Your task to perform on an android device: Go to Amazon Image 0: 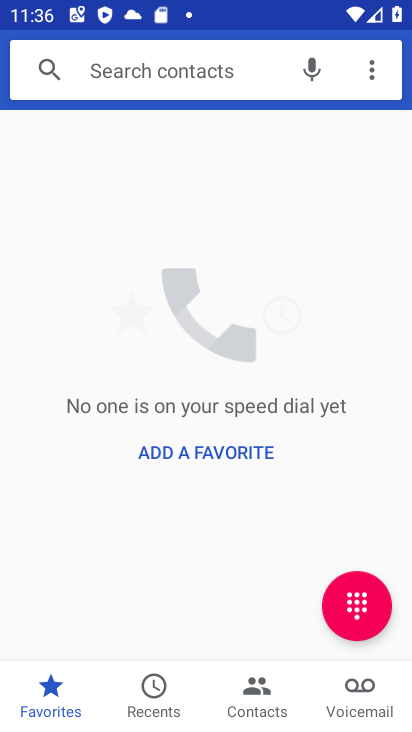
Step 0: press home button
Your task to perform on an android device: Go to Amazon Image 1: 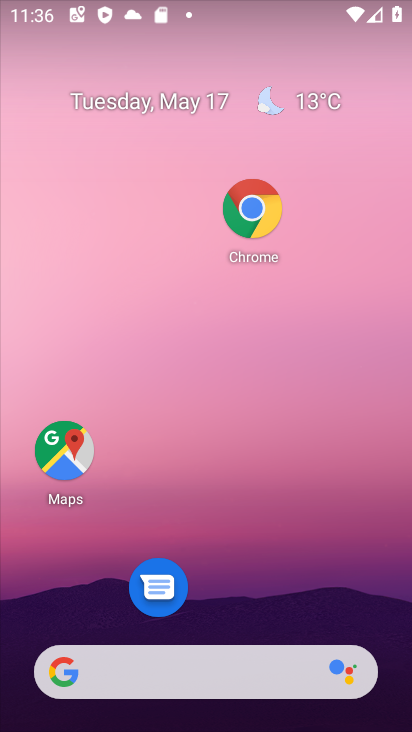
Step 1: click (251, 210)
Your task to perform on an android device: Go to Amazon Image 2: 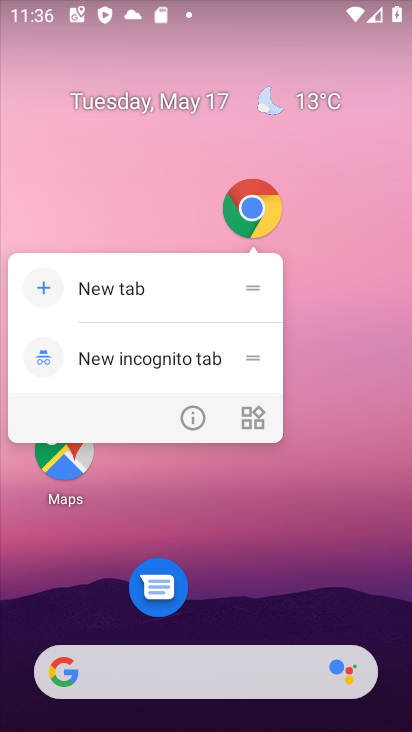
Step 2: click (251, 210)
Your task to perform on an android device: Go to Amazon Image 3: 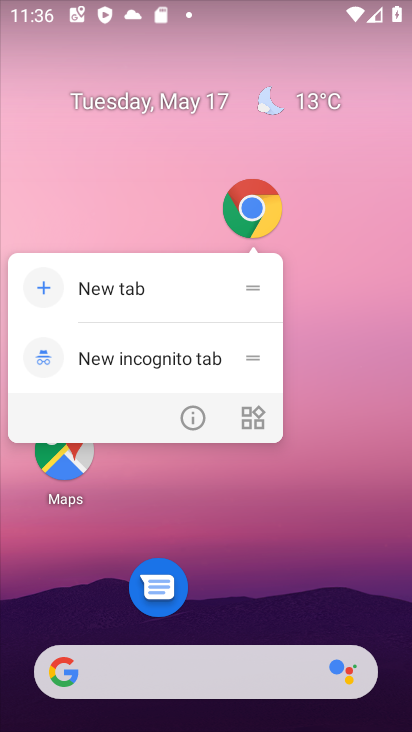
Step 3: click (251, 210)
Your task to perform on an android device: Go to Amazon Image 4: 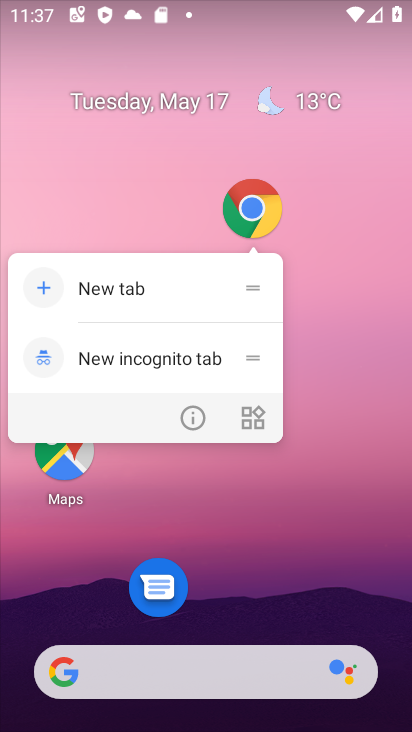
Step 4: click (251, 210)
Your task to perform on an android device: Go to Amazon Image 5: 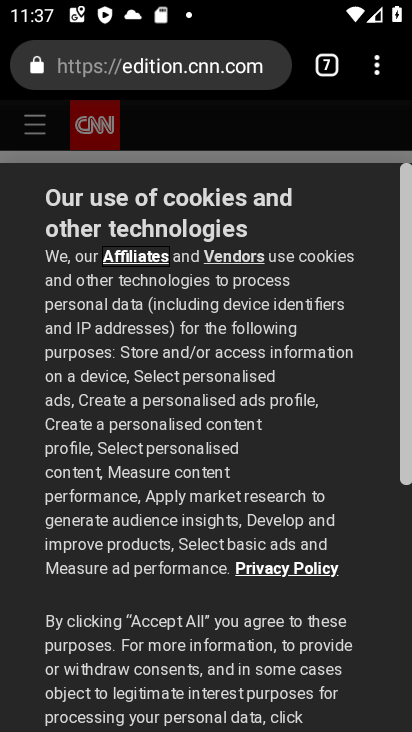
Step 5: click (329, 68)
Your task to perform on an android device: Go to Amazon Image 6: 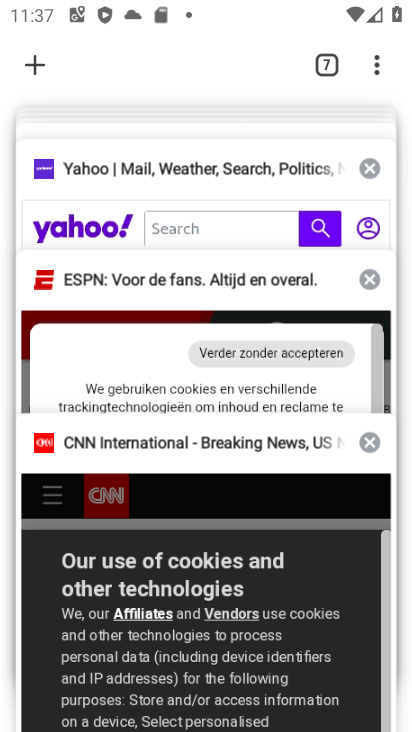
Step 6: drag from (224, 147) to (129, 602)
Your task to perform on an android device: Go to Amazon Image 7: 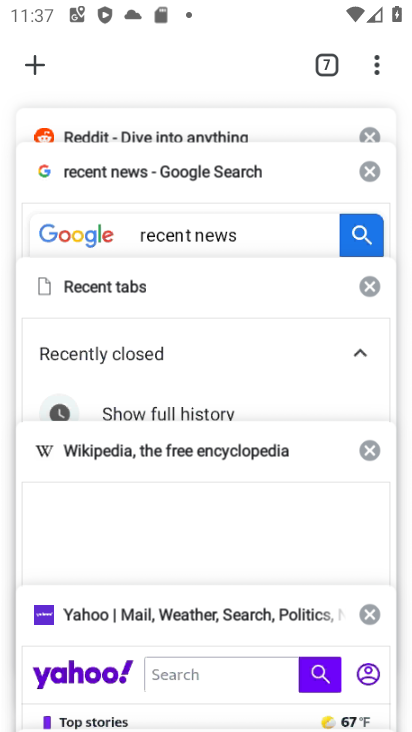
Step 7: drag from (145, 157) to (105, 536)
Your task to perform on an android device: Go to Amazon Image 8: 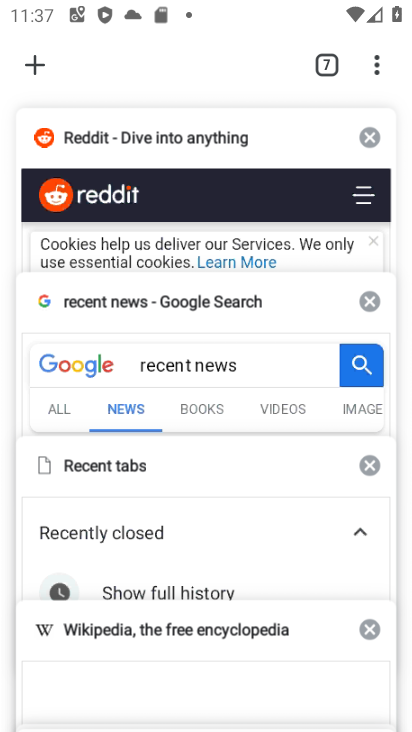
Step 8: drag from (204, 125) to (158, 534)
Your task to perform on an android device: Go to Amazon Image 9: 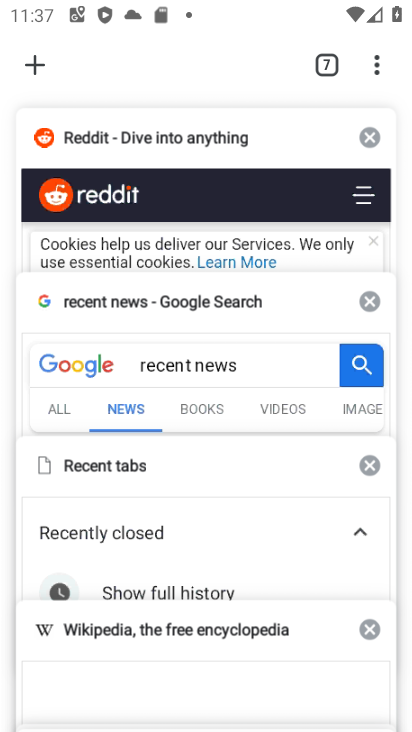
Step 9: click (37, 58)
Your task to perform on an android device: Go to Amazon Image 10: 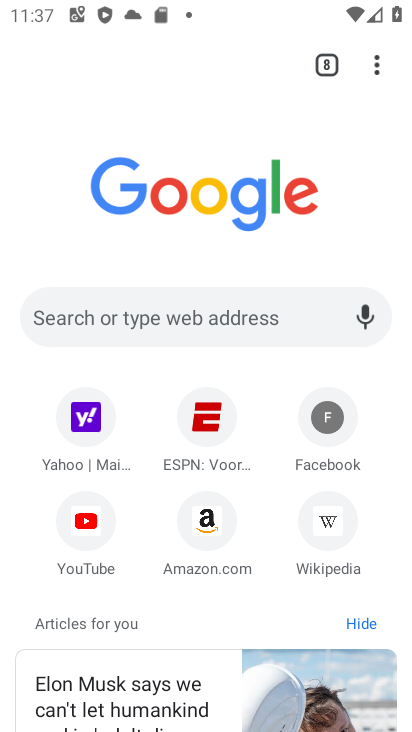
Step 10: click (216, 550)
Your task to perform on an android device: Go to Amazon Image 11: 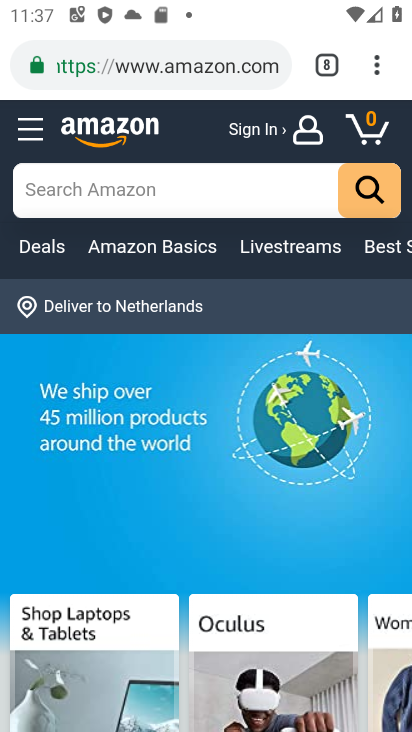
Step 11: task complete